Your task to perform on an android device: change your default location settings in chrome Image 0: 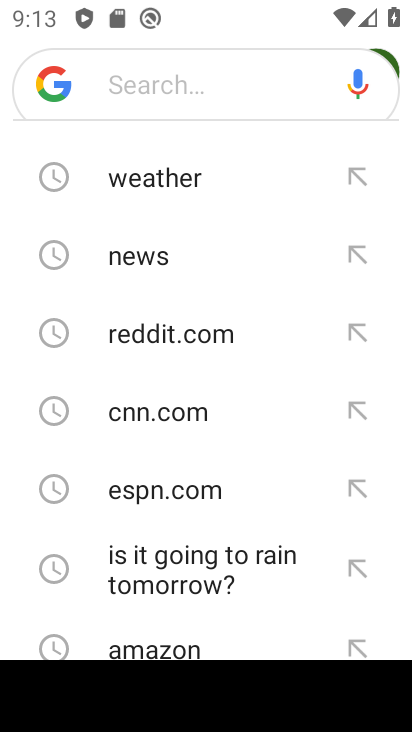
Step 0: press home button
Your task to perform on an android device: change your default location settings in chrome Image 1: 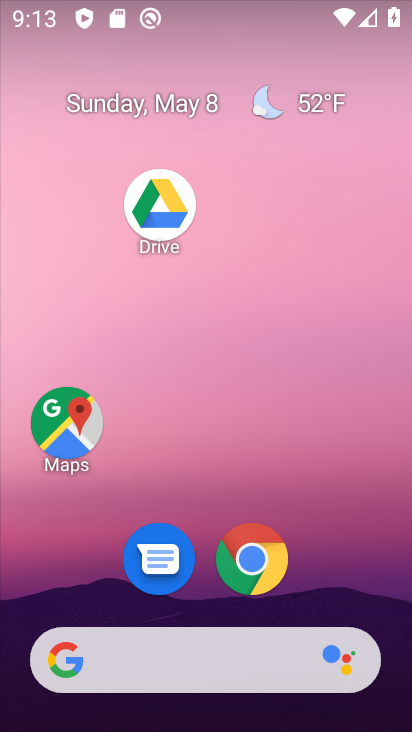
Step 1: click (258, 553)
Your task to perform on an android device: change your default location settings in chrome Image 2: 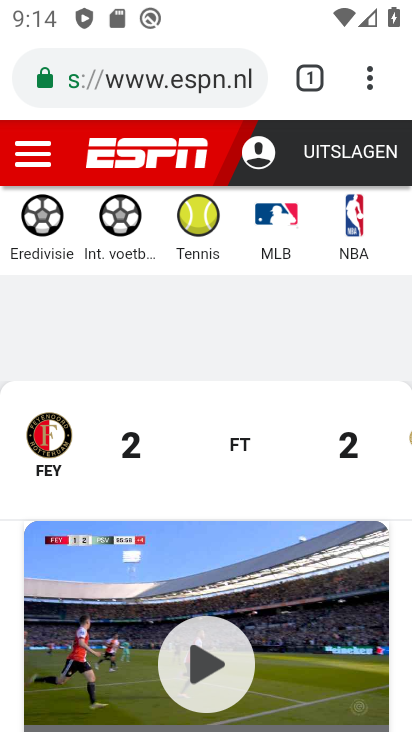
Step 2: click (371, 93)
Your task to perform on an android device: change your default location settings in chrome Image 3: 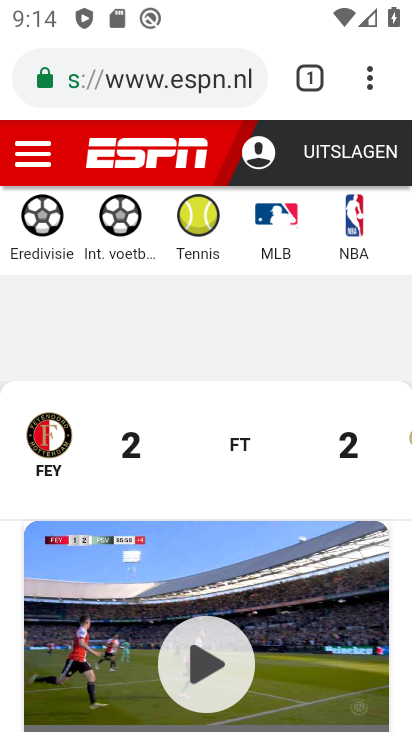
Step 3: click (363, 107)
Your task to perform on an android device: change your default location settings in chrome Image 4: 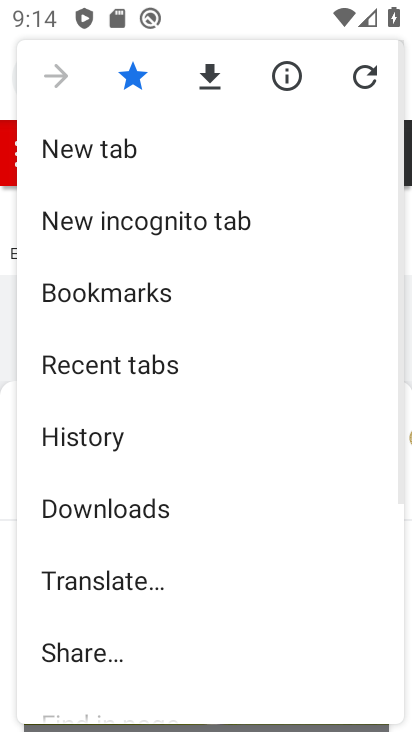
Step 4: drag from (168, 515) to (148, 212)
Your task to perform on an android device: change your default location settings in chrome Image 5: 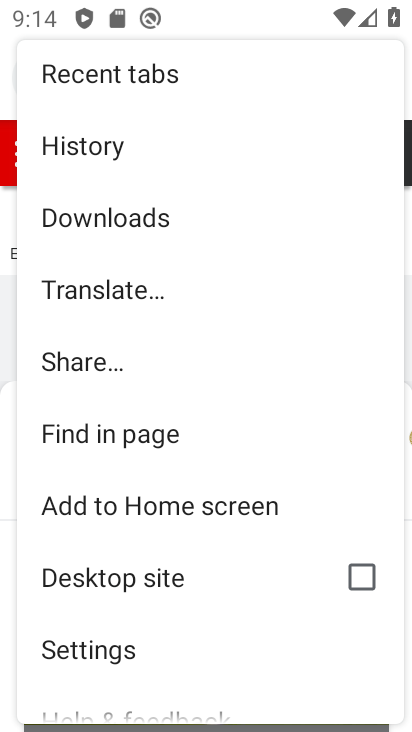
Step 5: click (118, 640)
Your task to perform on an android device: change your default location settings in chrome Image 6: 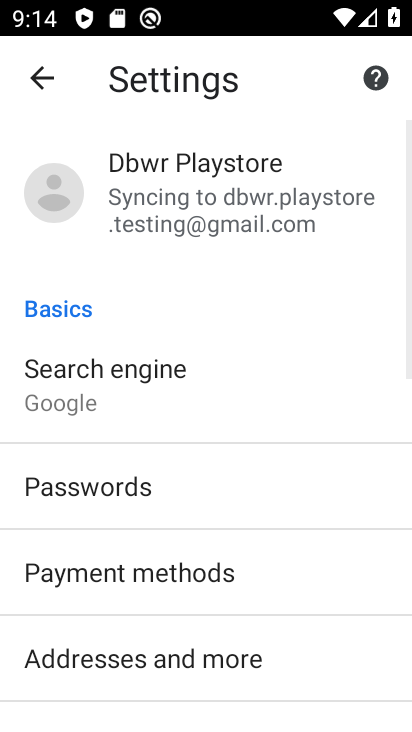
Step 6: drag from (115, 716) to (142, 255)
Your task to perform on an android device: change your default location settings in chrome Image 7: 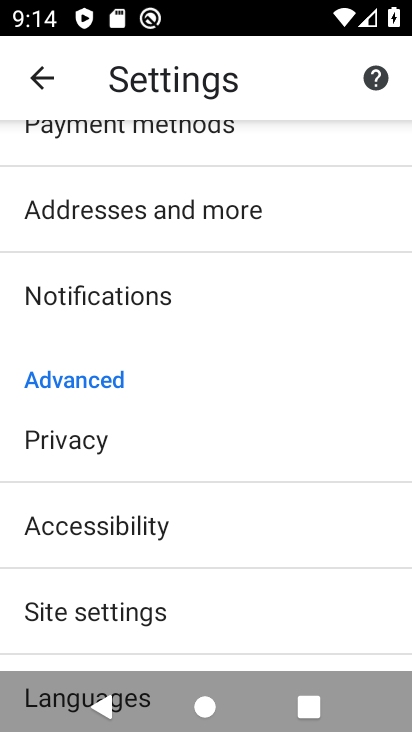
Step 7: drag from (151, 631) to (168, 251)
Your task to perform on an android device: change your default location settings in chrome Image 8: 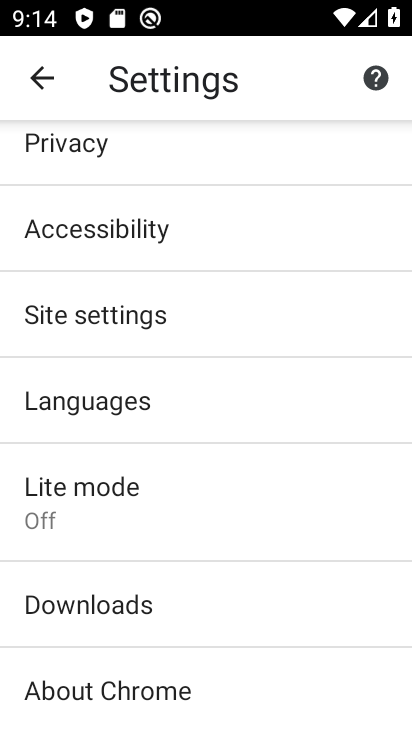
Step 8: click (134, 331)
Your task to perform on an android device: change your default location settings in chrome Image 9: 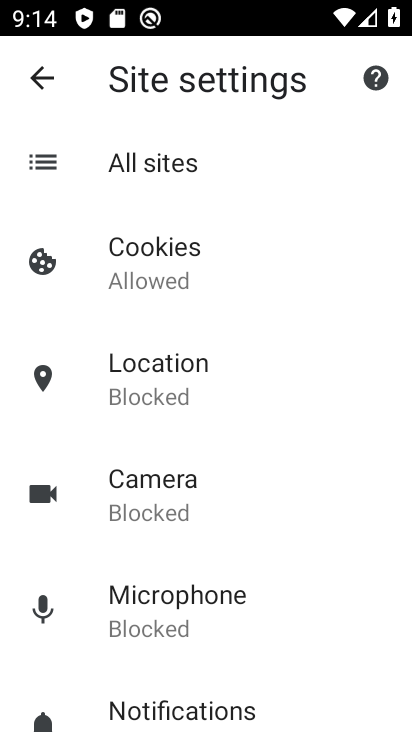
Step 9: click (178, 372)
Your task to perform on an android device: change your default location settings in chrome Image 10: 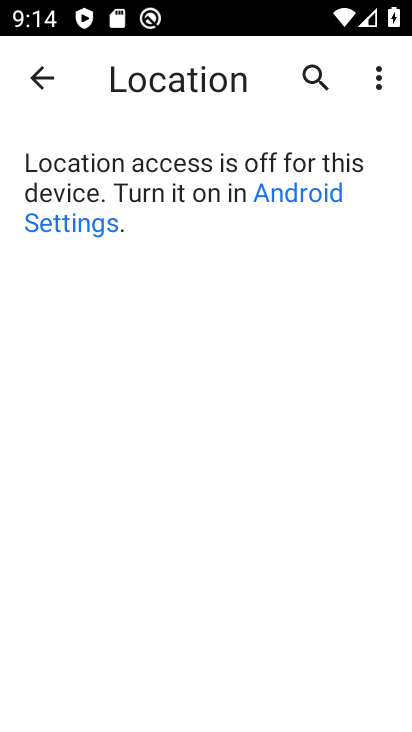
Step 10: click (96, 182)
Your task to perform on an android device: change your default location settings in chrome Image 11: 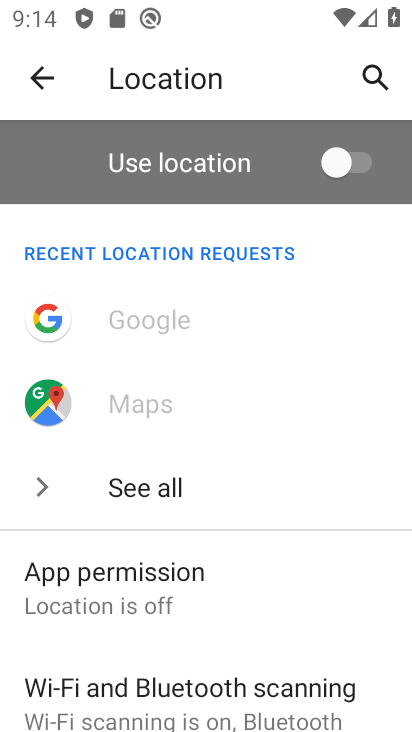
Step 11: click (151, 511)
Your task to perform on an android device: change your default location settings in chrome Image 12: 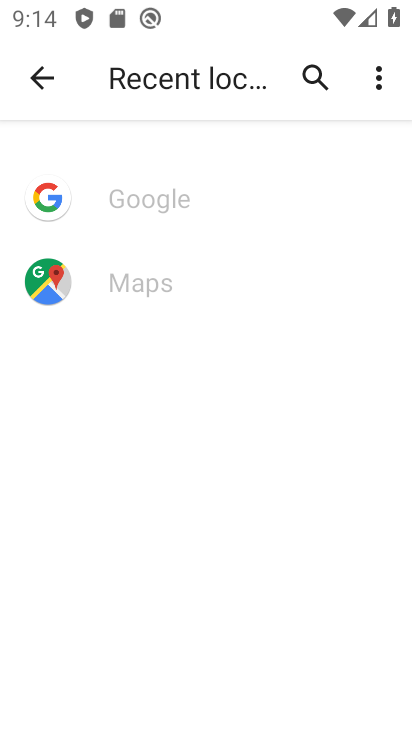
Step 12: click (50, 74)
Your task to perform on an android device: change your default location settings in chrome Image 13: 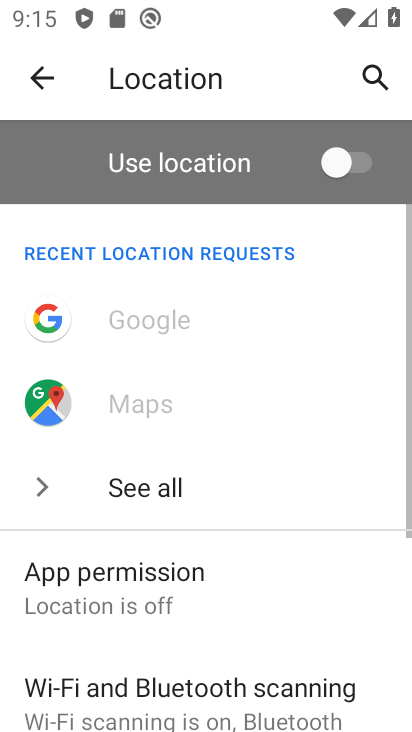
Step 13: drag from (244, 559) to (211, 335)
Your task to perform on an android device: change your default location settings in chrome Image 14: 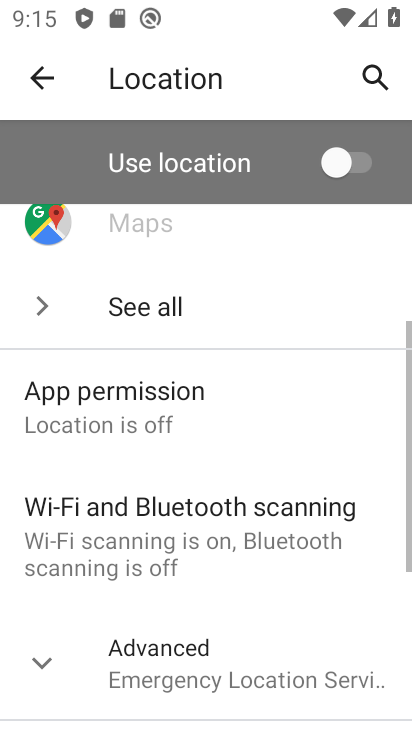
Step 14: click (166, 416)
Your task to perform on an android device: change your default location settings in chrome Image 15: 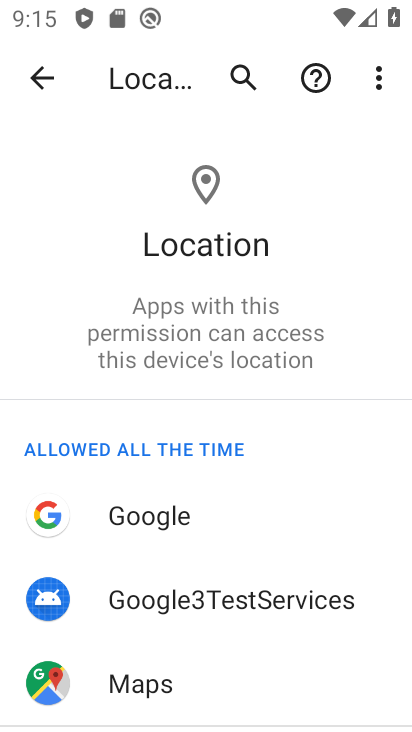
Step 15: drag from (259, 520) to (223, 174)
Your task to perform on an android device: change your default location settings in chrome Image 16: 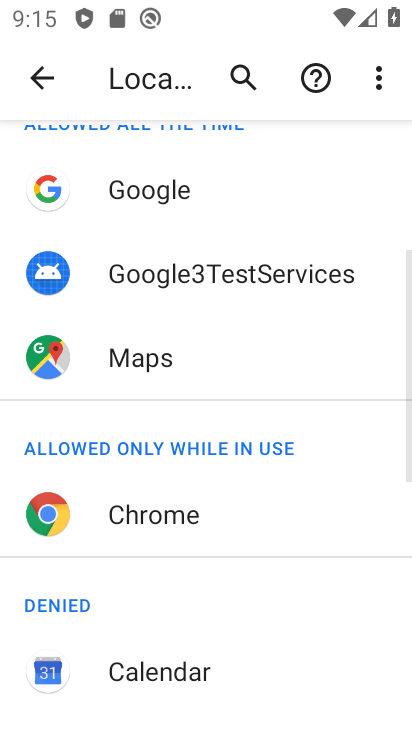
Step 16: click (183, 512)
Your task to perform on an android device: change your default location settings in chrome Image 17: 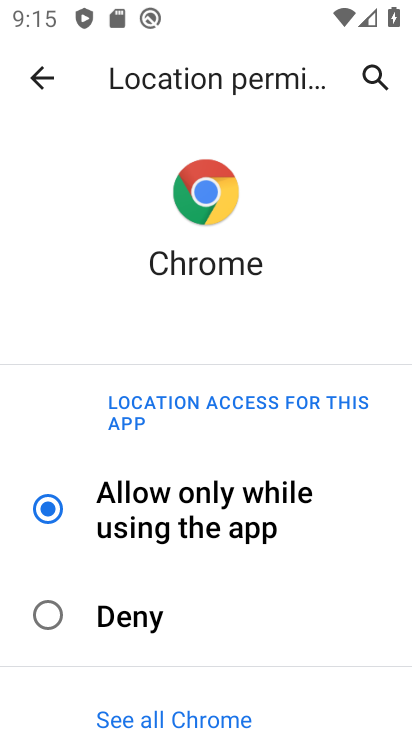
Step 17: click (132, 624)
Your task to perform on an android device: change your default location settings in chrome Image 18: 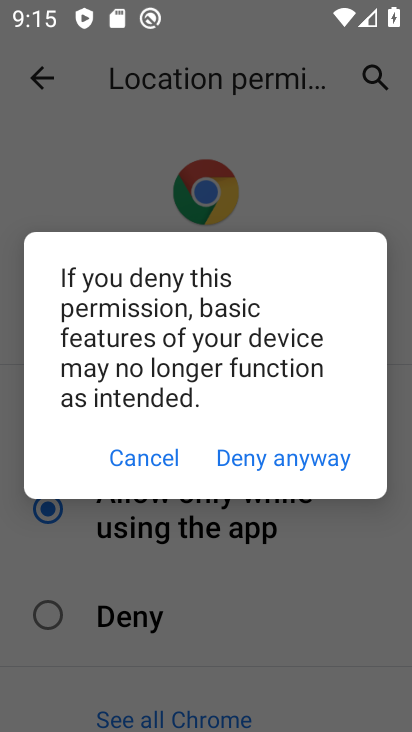
Step 18: click (259, 455)
Your task to perform on an android device: change your default location settings in chrome Image 19: 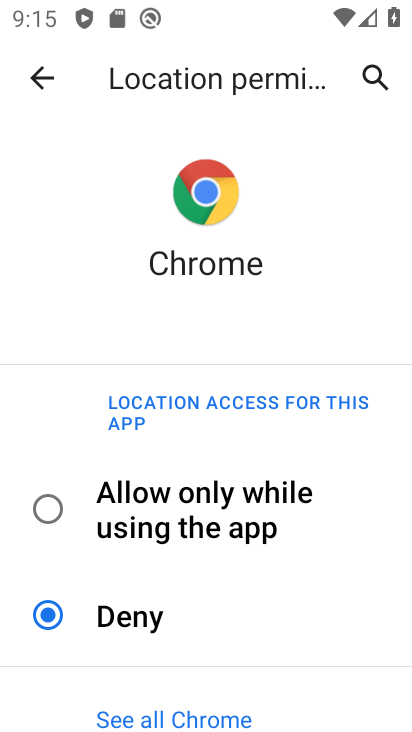
Step 19: task complete